Your task to perform on an android device: Open display settings Image 0: 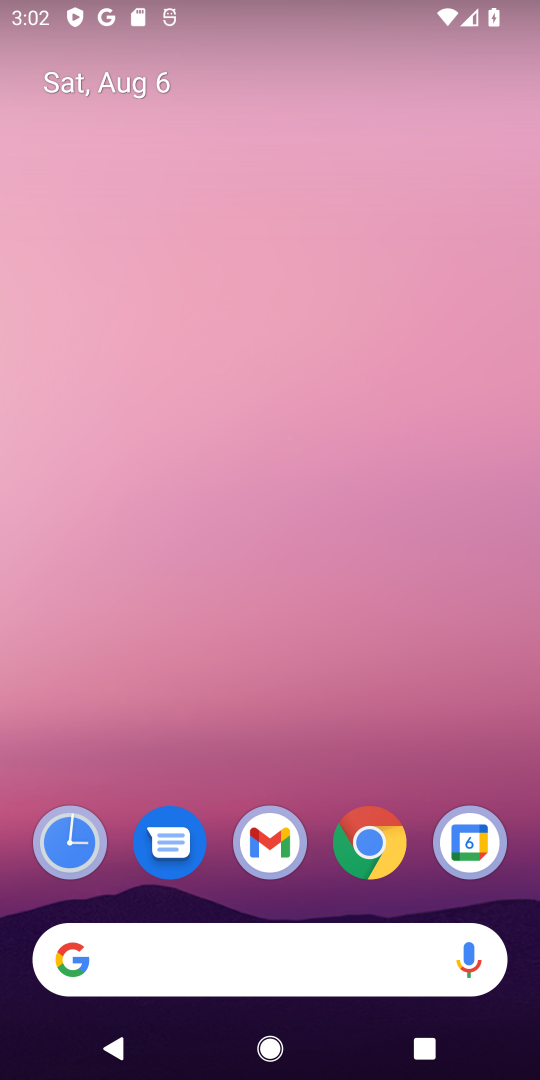
Step 0: drag from (490, 938) to (428, 110)
Your task to perform on an android device: Open display settings Image 1: 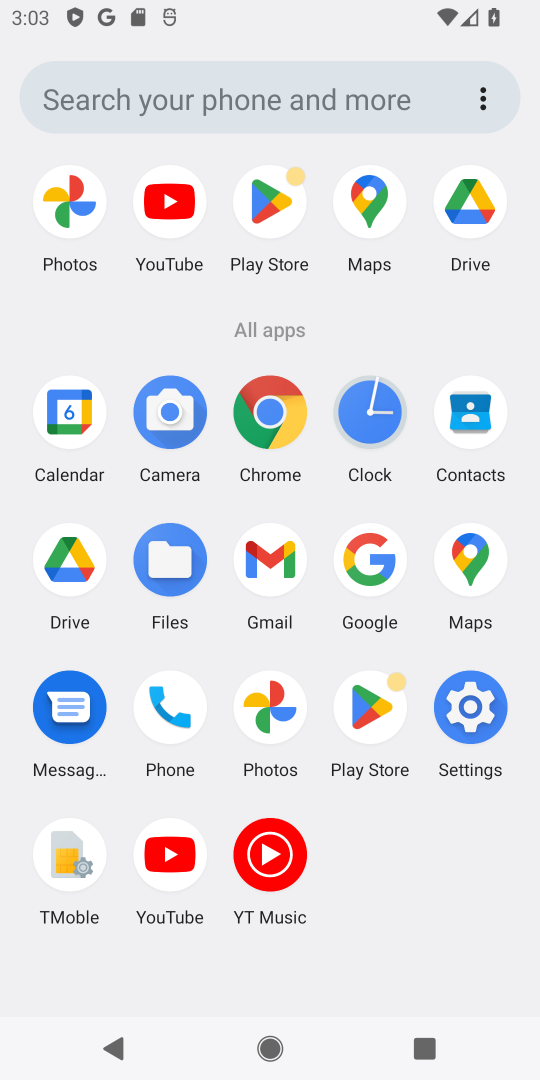
Step 1: click (472, 697)
Your task to perform on an android device: Open display settings Image 2: 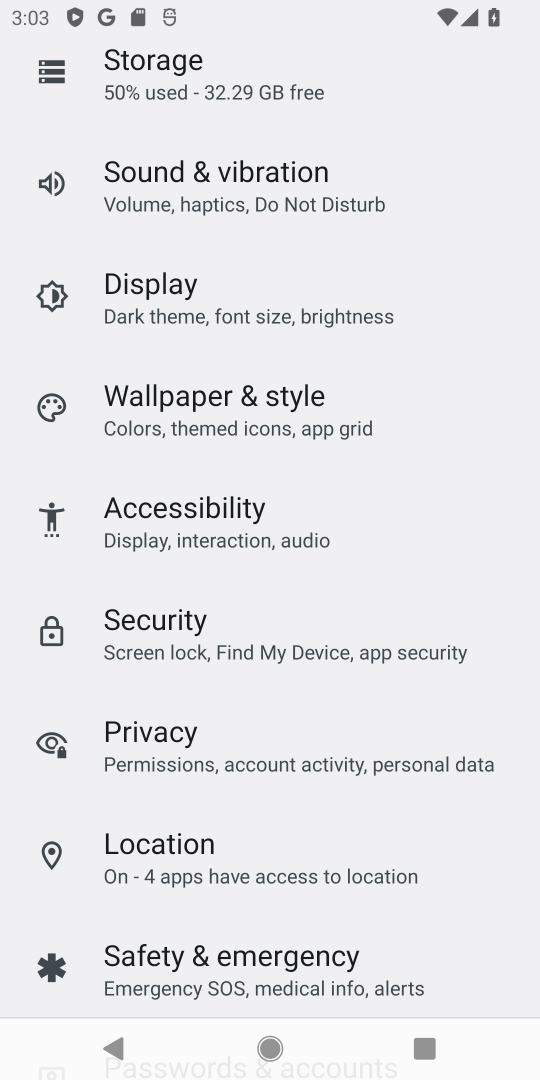
Step 2: click (132, 276)
Your task to perform on an android device: Open display settings Image 3: 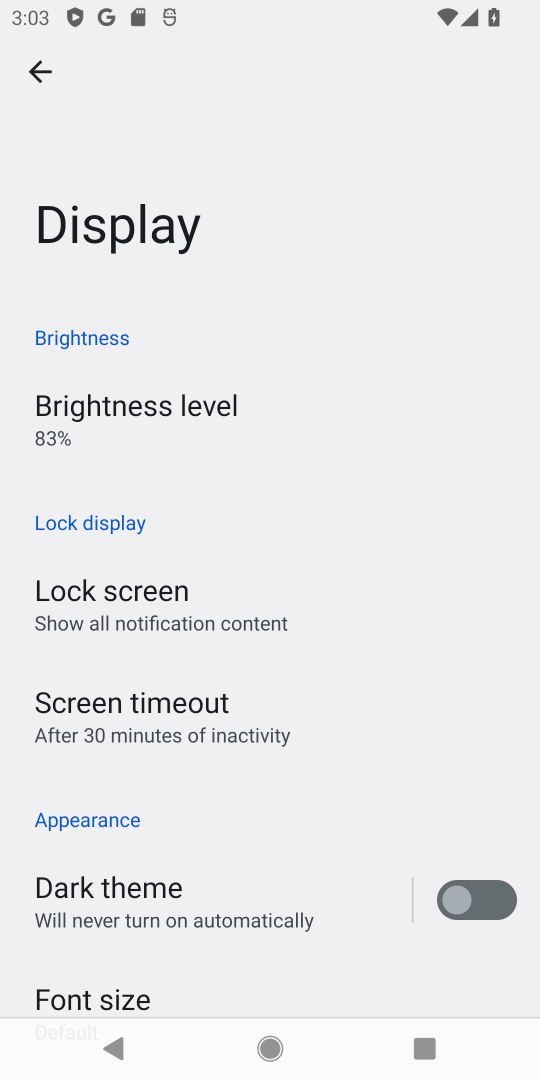
Step 3: task complete